Your task to perform on an android device: find snoozed emails in the gmail app Image 0: 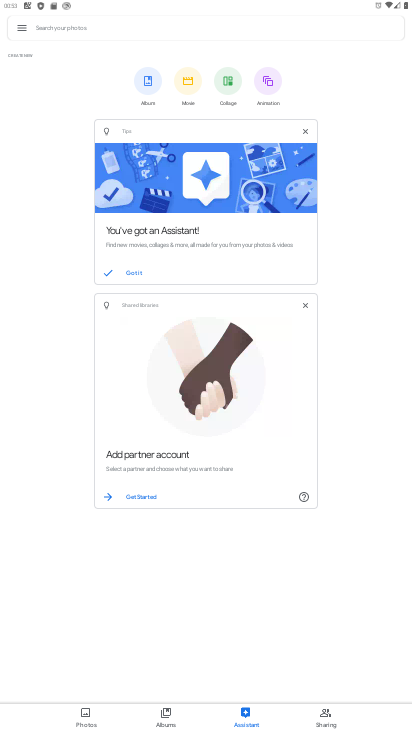
Step 0: press home button
Your task to perform on an android device: find snoozed emails in the gmail app Image 1: 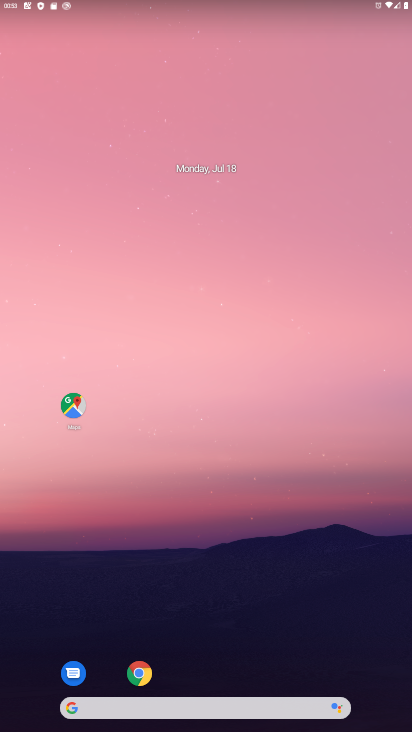
Step 1: drag from (217, 658) to (228, 224)
Your task to perform on an android device: find snoozed emails in the gmail app Image 2: 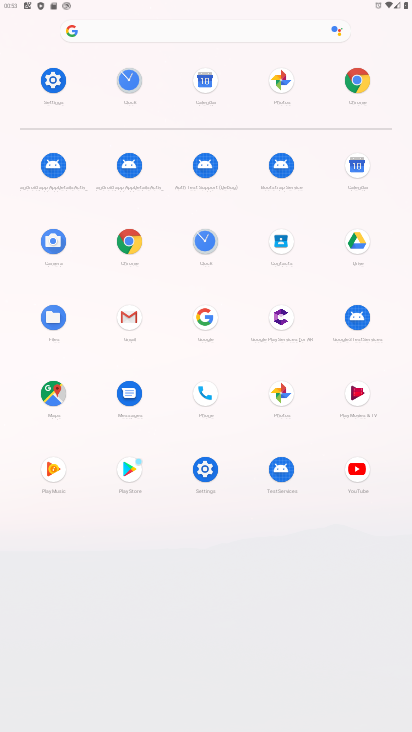
Step 2: click (131, 323)
Your task to perform on an android device: find snoozed emails in the gmail app Image 3: 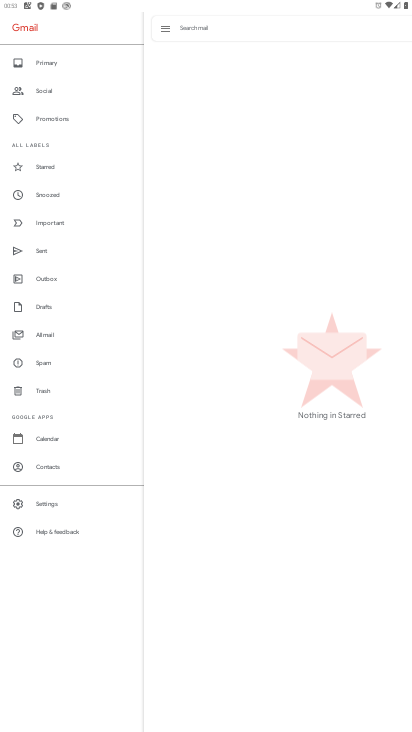
Step 3: click (68, 188)
Your task to perform on an android device: find snoozed emails in the gmail app Image 4: 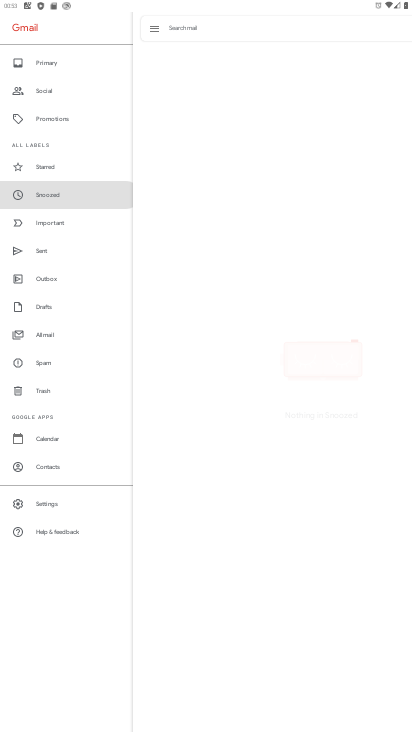
Step 4: task complete